Your task to perform on an android device: read, delete, or share a saved page in the chrome app Image 0: 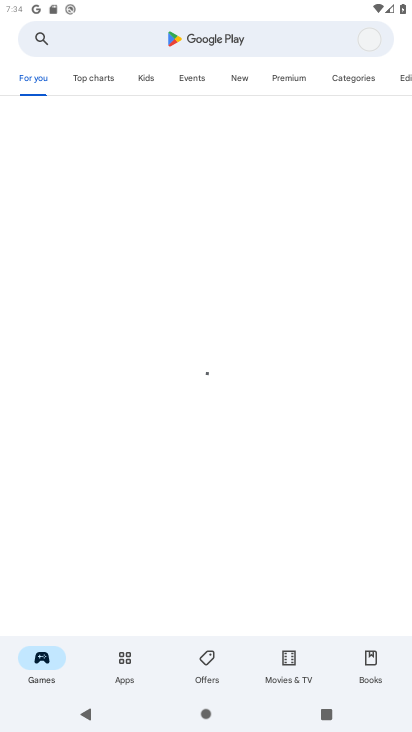
Step 0: press home button
Your task to perform on an android device: read, delete, or share a saved page in the chrome app Image 1: 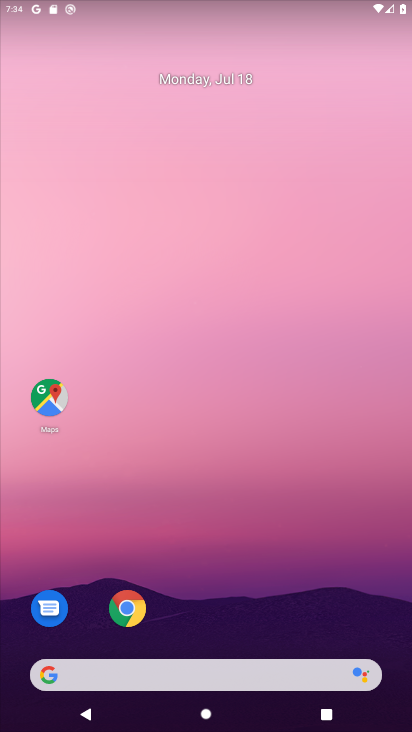
Step 1: click (144, 611)
Your task to perform on an android device: read, delete, or share a saved page in the chrome app Image 2: 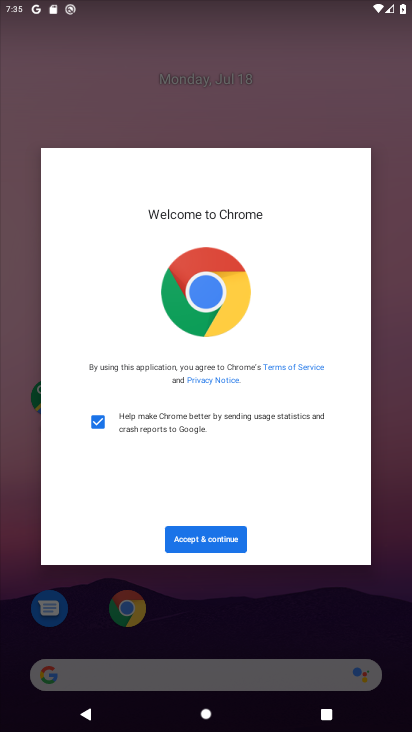
Step 2: click (228, 548)
Your task to perform on an android device: read, delete, or share a saved page in the chrome app Image 3: 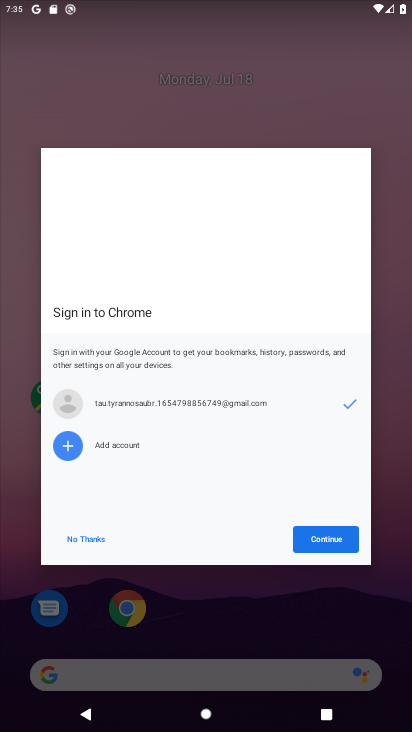
Step 3: click (316, 541)
Your task to perform on an android device: read, delete, or share a saved page in the chrome app Image 4: 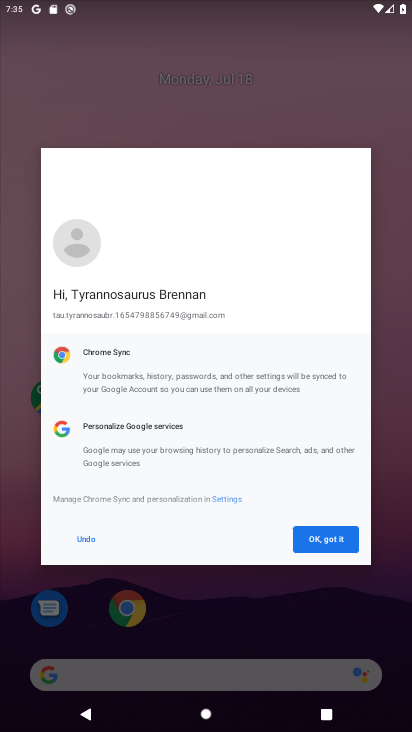
Step 4: click (349, 530)
Your task to perform on an android device: read, delete, or share a saved page in the chrome app Image 5: 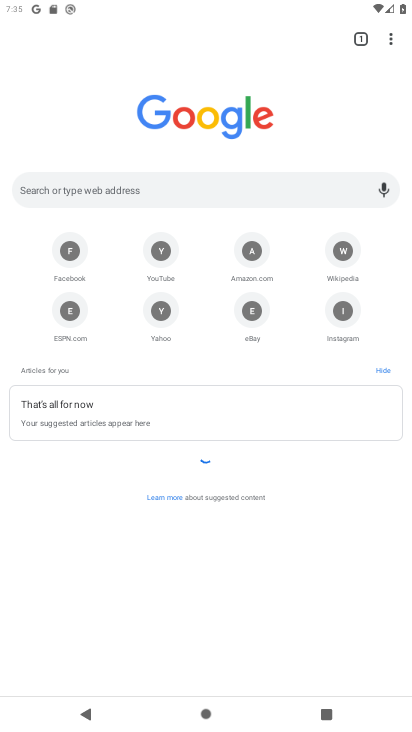
Step 5: click (390, 32)
Your task to perform on an android device: read, delete, or share a saved page in the chrome app Image 6: 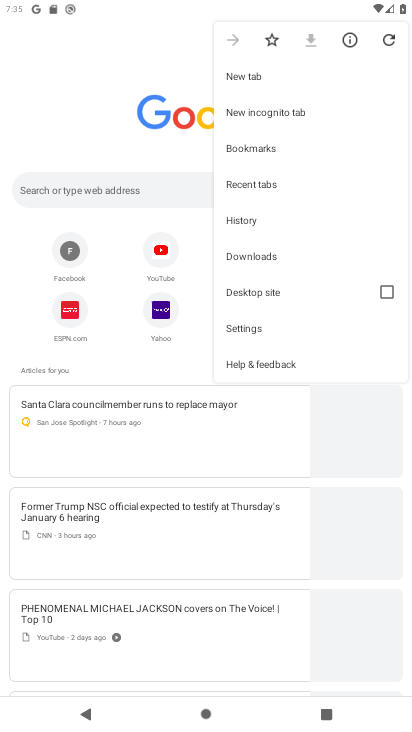
Step 6: click (237, 322)
Your task to perform on an android device: read, delete, or share a saved page in the chrome app Image 7: 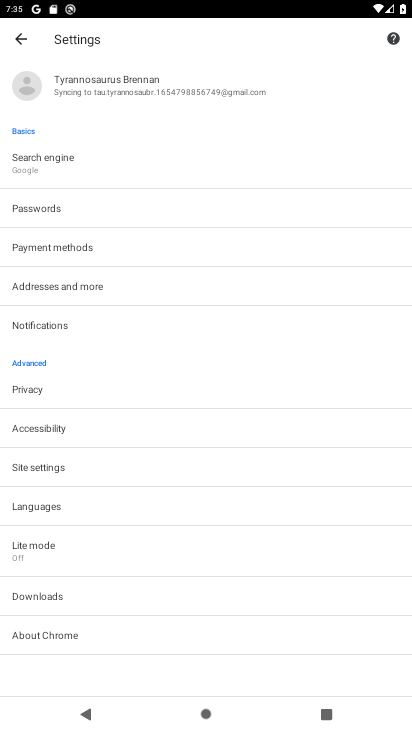
Step 7: task complete